Your task to perform on an android device: open app "TextNow: Call + Text Unlimited" (install if not already installed) and go to login screen Image 0: 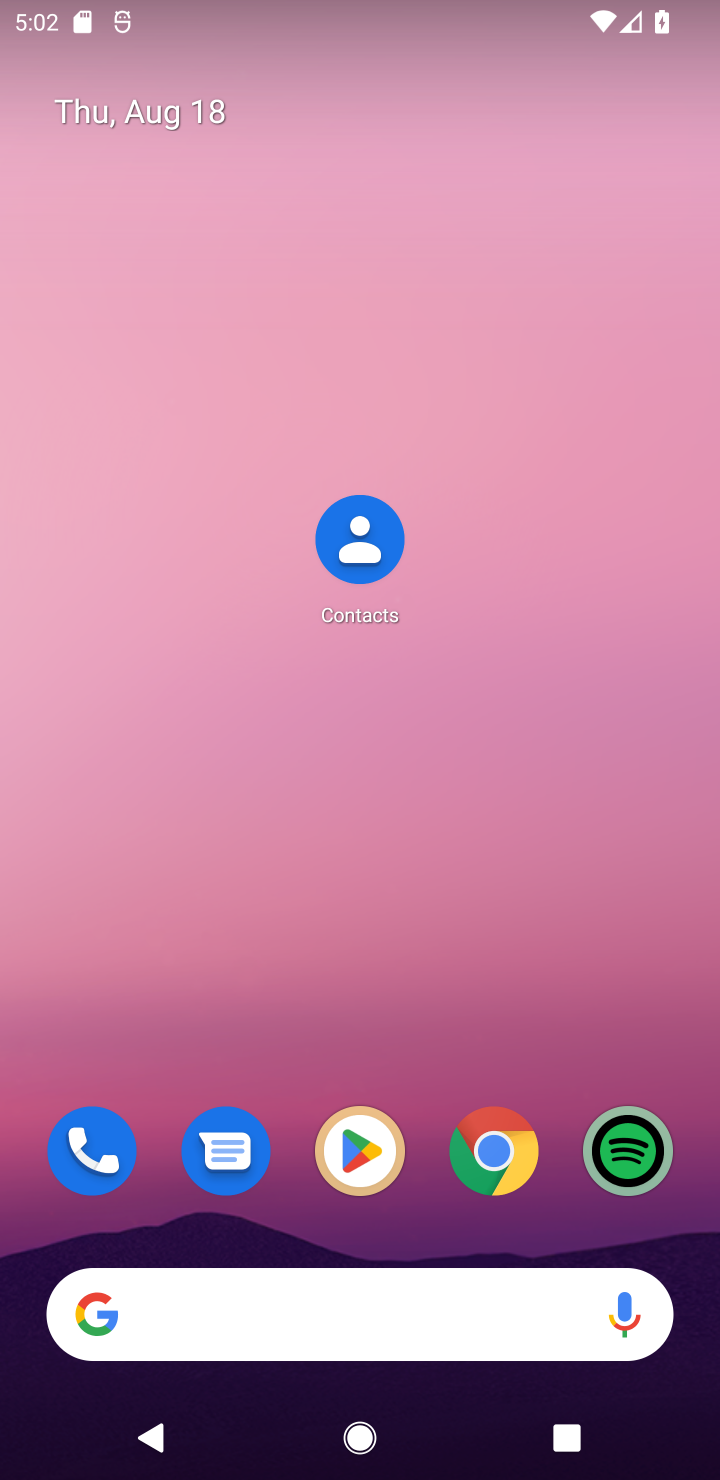
Step 0: click (368, 1181)
Your task to perform on an android device: open app "TextNow: Call + Text Unlimited" (install if not already installed) and go to login screen Image 1: 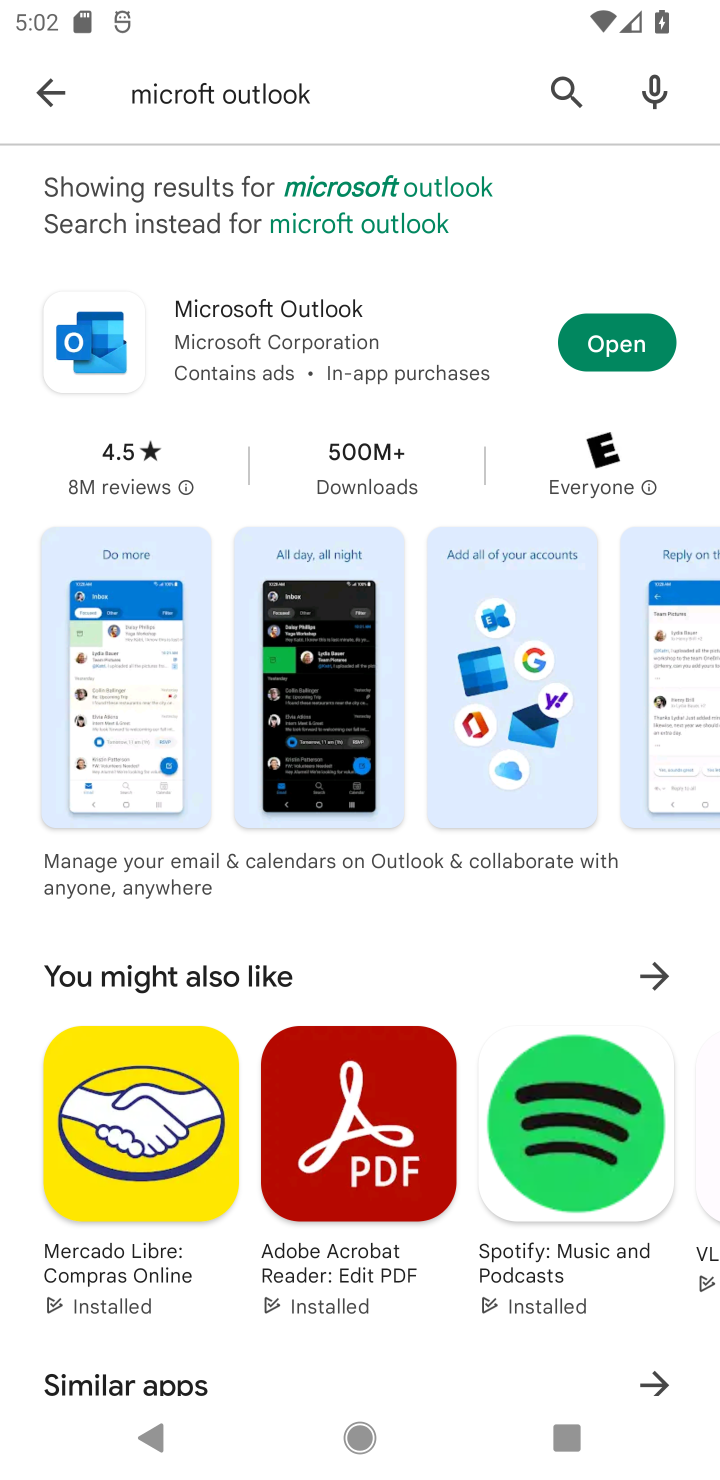
Step 1: click (551, 108)
Your task to perform on an android device: open app "TextNow: Call + Text Unlimited" (install if not already installed) and go to login screen Image 2: 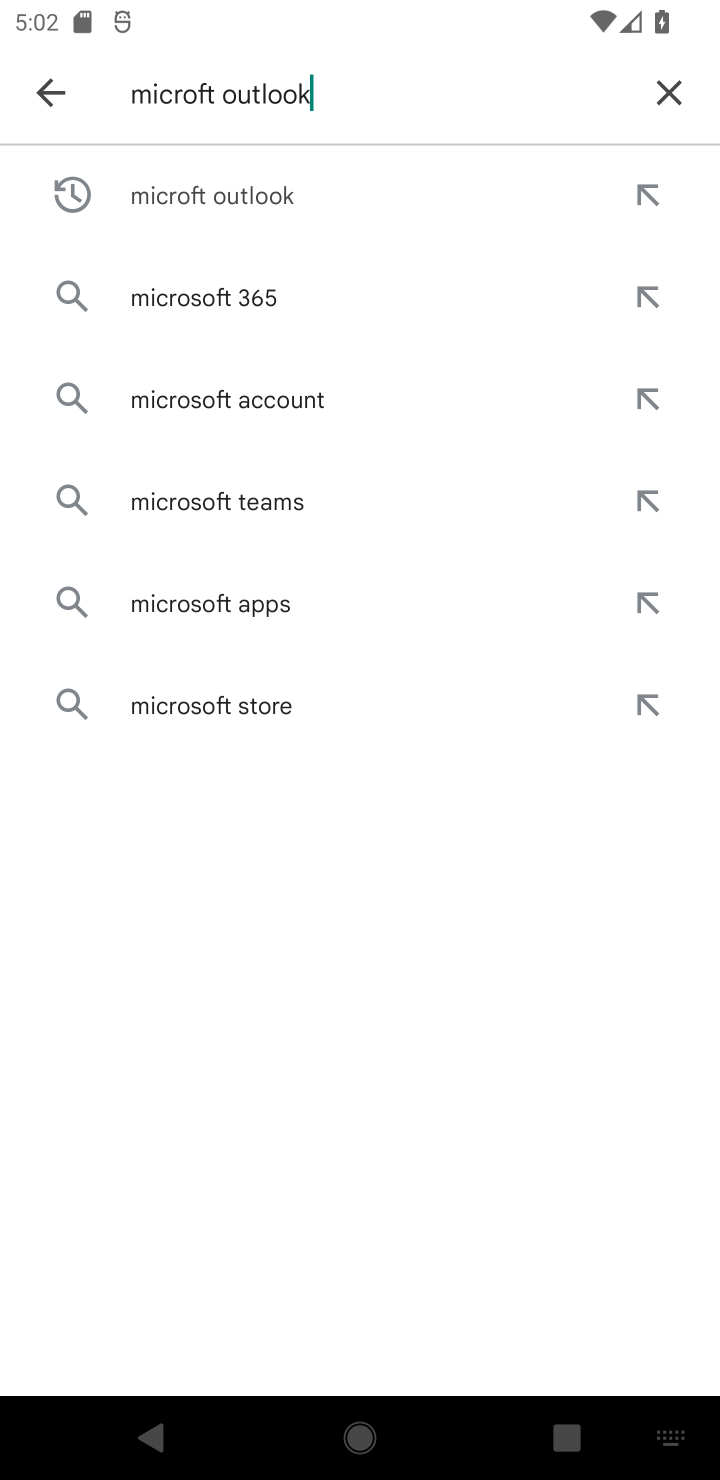
Step 2: click (646, 108)
Your task to perform on an android device: open app "TextNow: Call + Text Unlimited" (install if not already installed) and go to login screen Image 3: 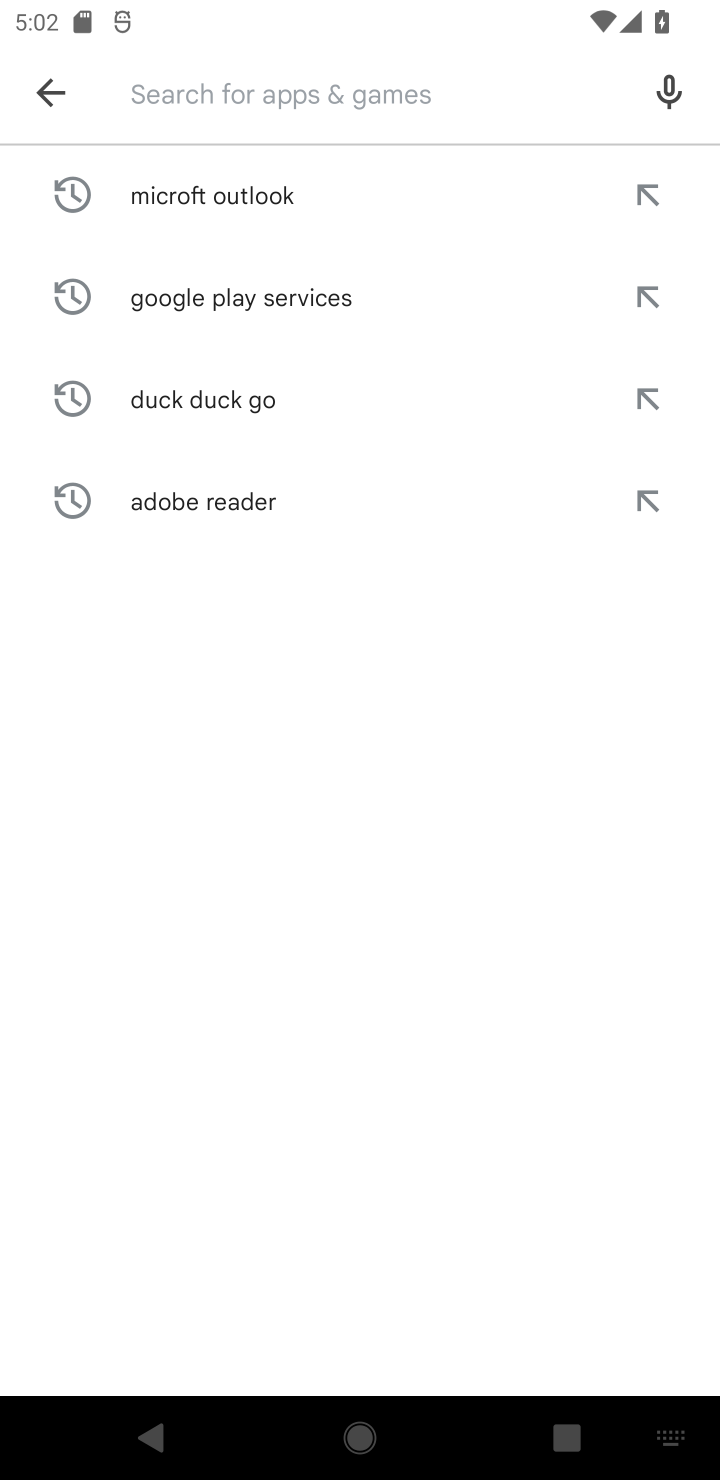
Step 3: type "textnow"
Your task to perform on an android device: open app "TextNow: Call + Text Unlimited" (install if not already installed) and go to login screen Image 4: 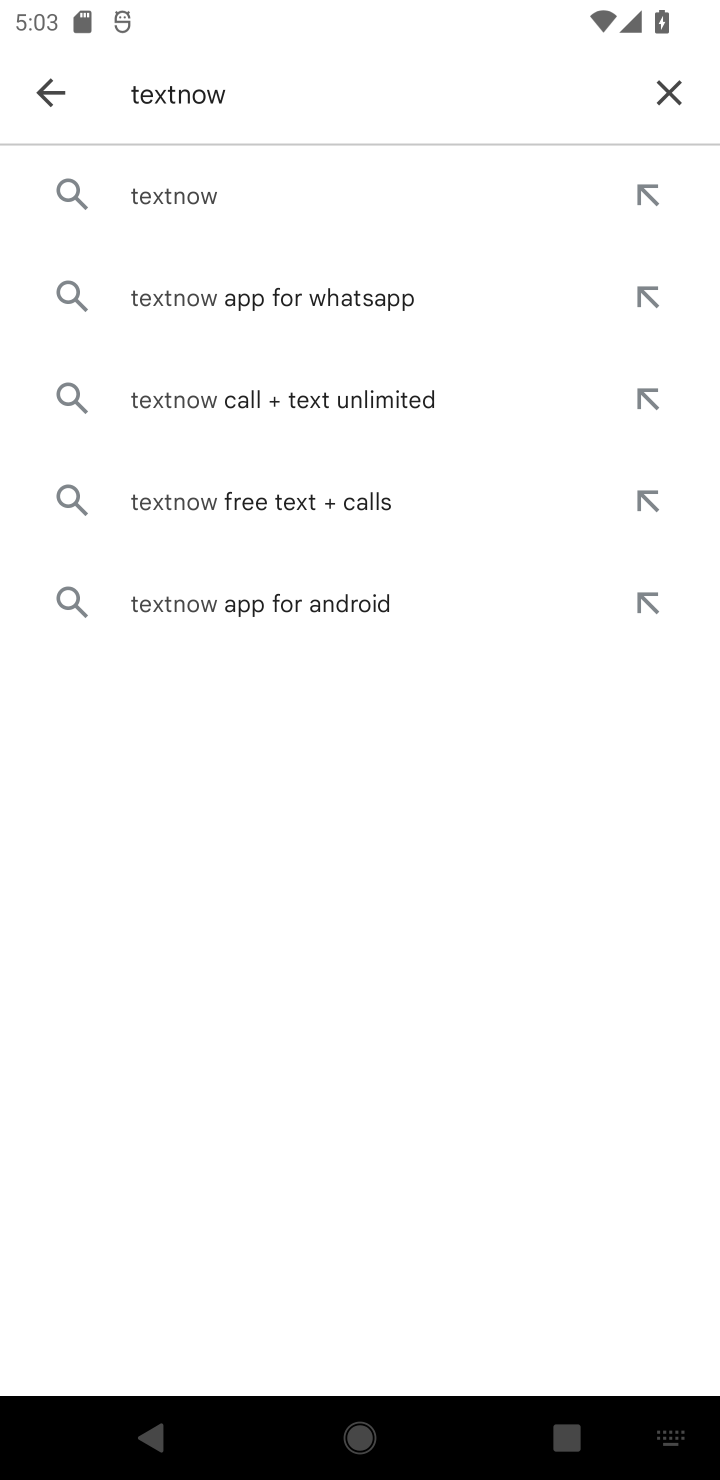
Step 4: click (463, 200)
Your task to perform on an android device: open app "TextNow: Call + Text Unlimited" (install if not already installed) and go to login screen Image 5: 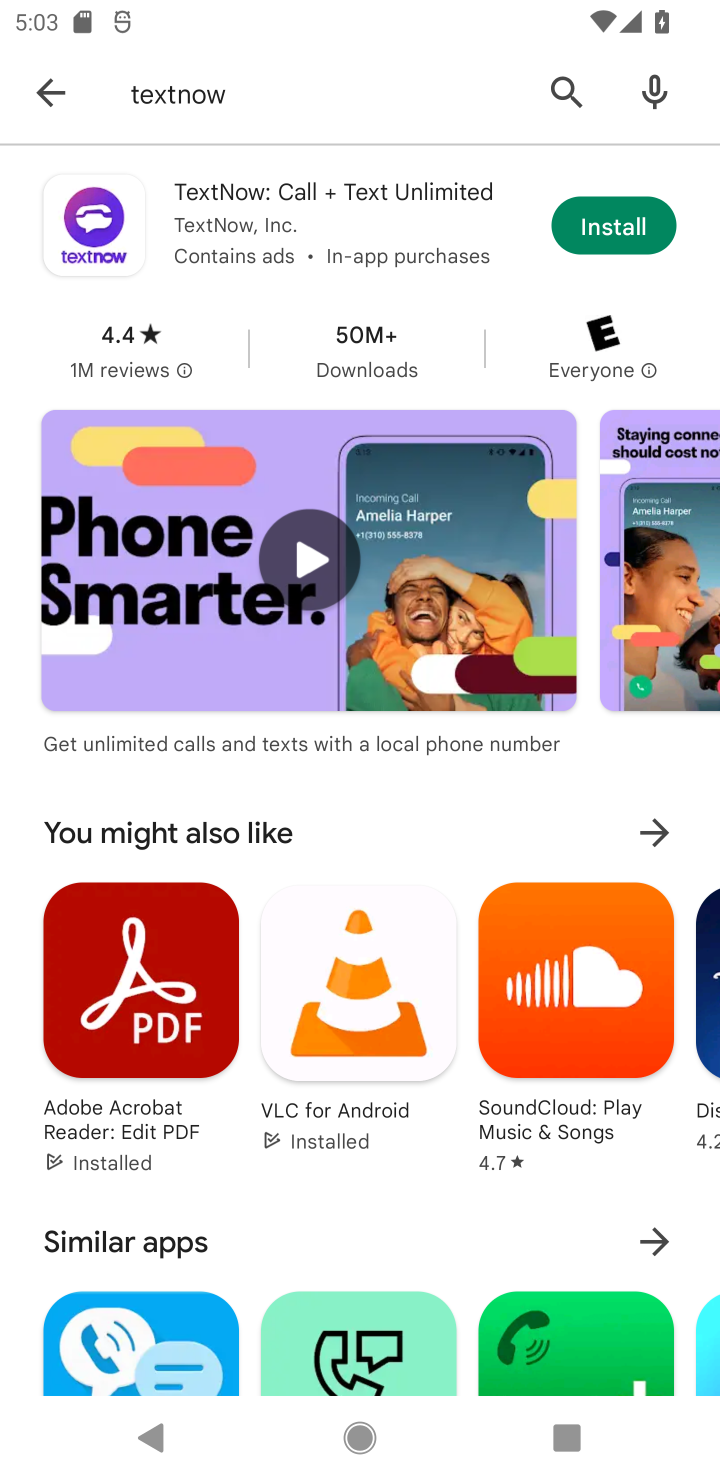
Step 5: click (571, 250)
Your task to perform on an android device: open app "TextNow: Call + Text Unlimited" (install if not already installed) and go to login screen Image 6: 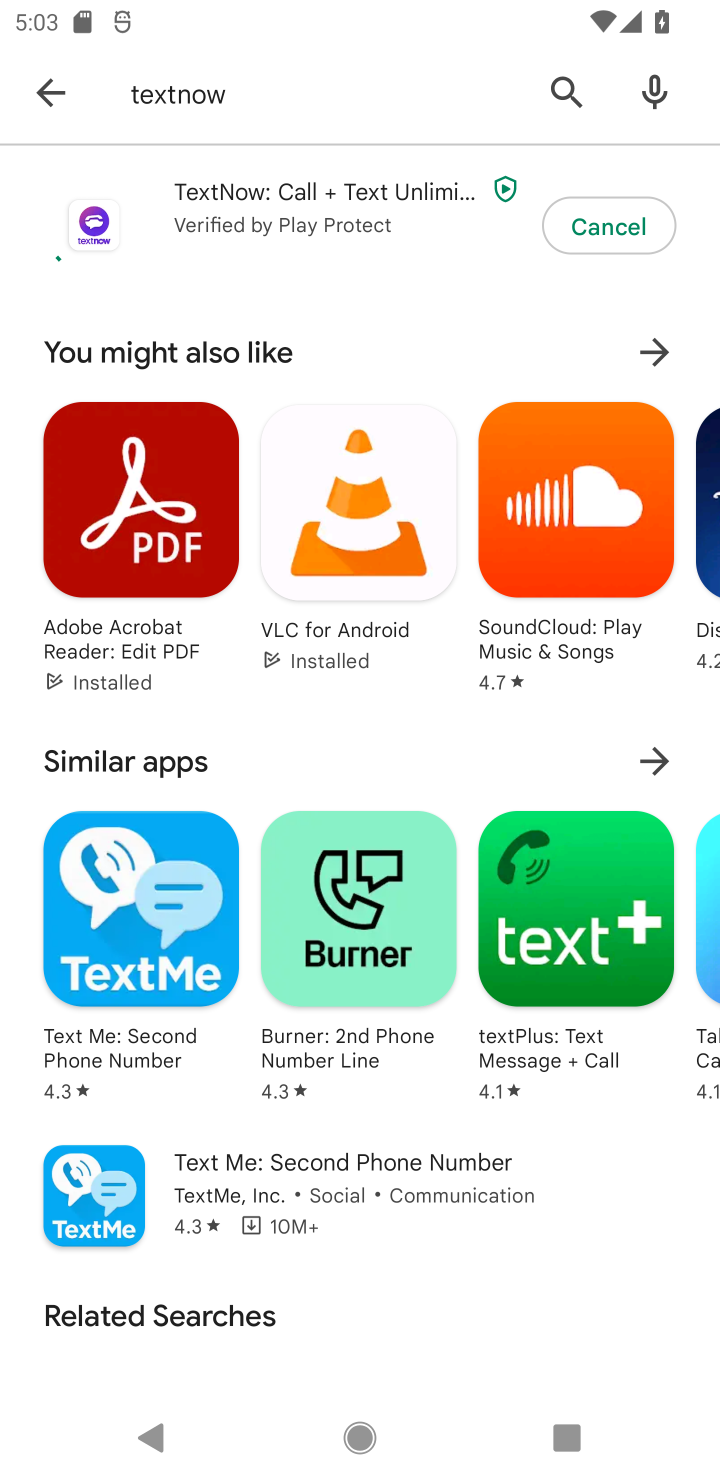
Step 6: task complete